Your task to perform on an android device: open app "Move to iOS" (install if not already installed) and go to login screen Image 0: 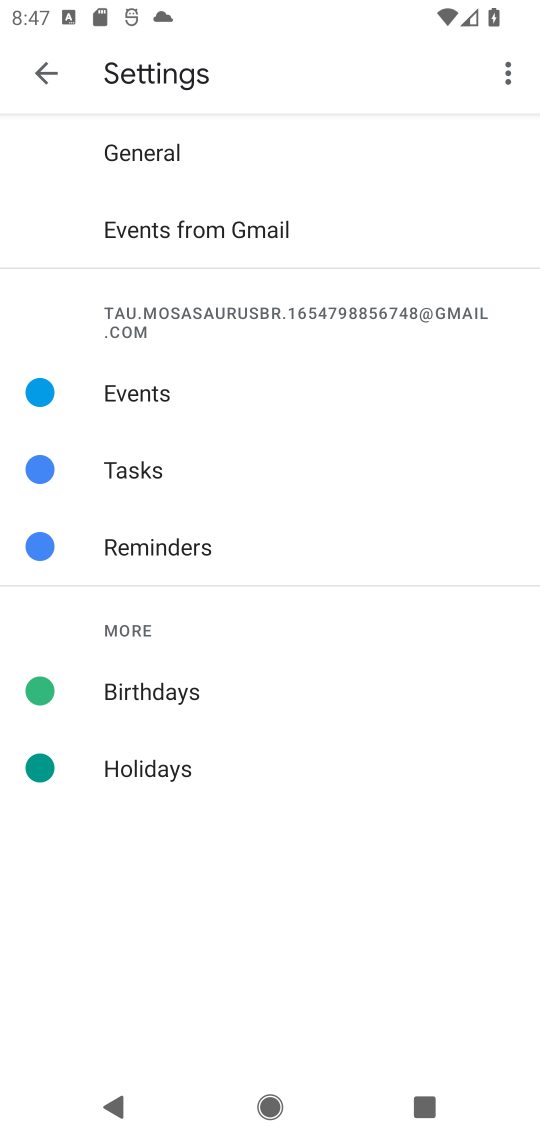
Step 0: press home button
Your task to perform on an android device: open app "Move to iOS" (install if not already installed) and go to login screen Image 1: 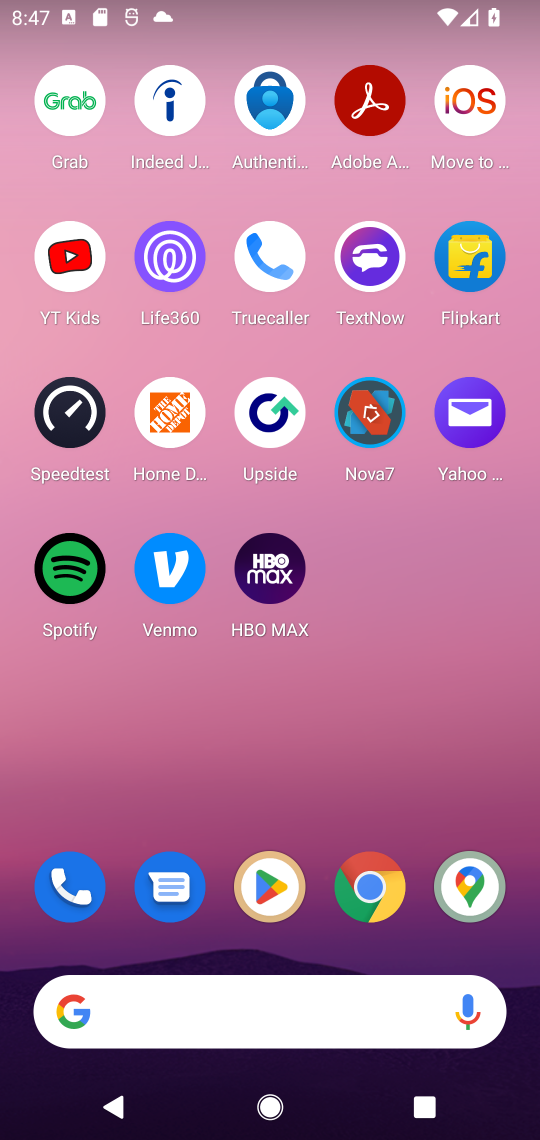
Step 1: click (269, 897)
Your task to perform on an android device: open app "Move to iOS" (install if not already installed) and go to login screen Image 2: 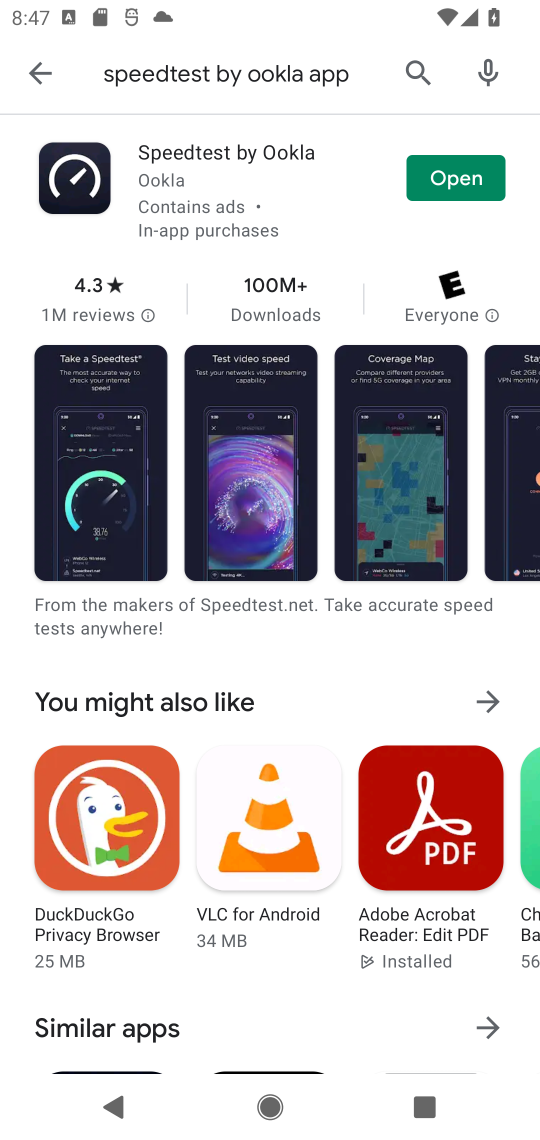
Step 2: click (415, 72)
Your task to perform on an android device: open app "Move to iOS" (install if not already installed) and go to login screen Image 3: 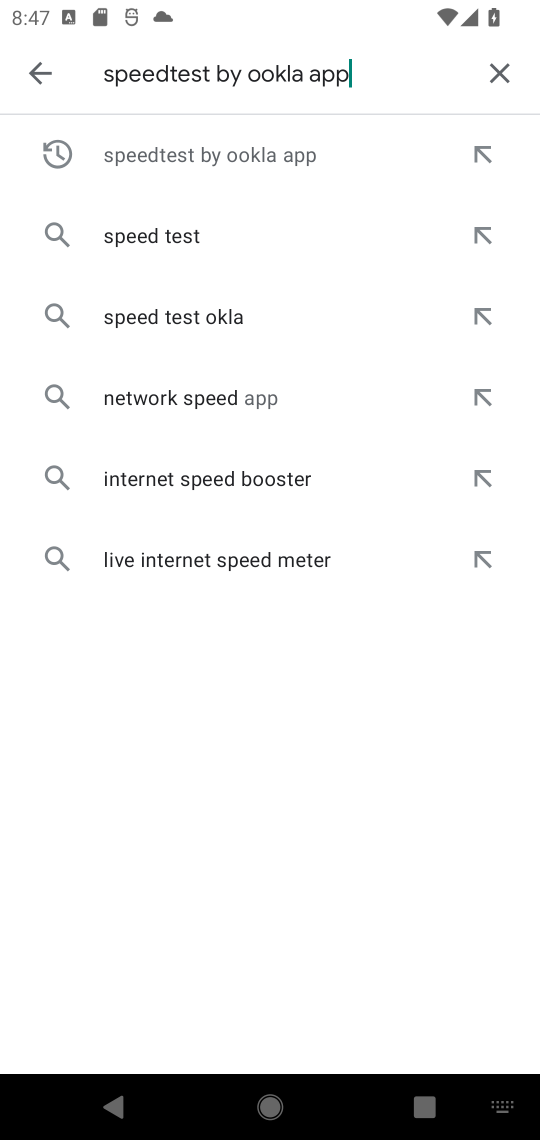
Step 3: click (501, 65)
Your task to perform on an android device: open app "Move to iOS" (install if not already installed) and go to login screen Image 4: 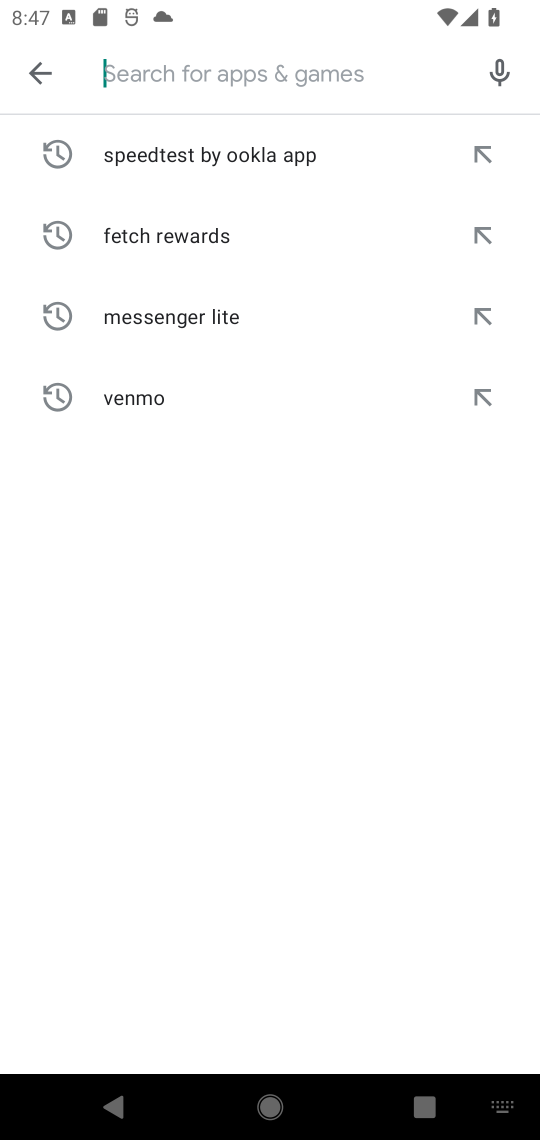
Step 4: type "Move to iOS"
Your task to perform on an android device: open app "Move to iOS" (install if not already installed) and go to login screen Image 5: 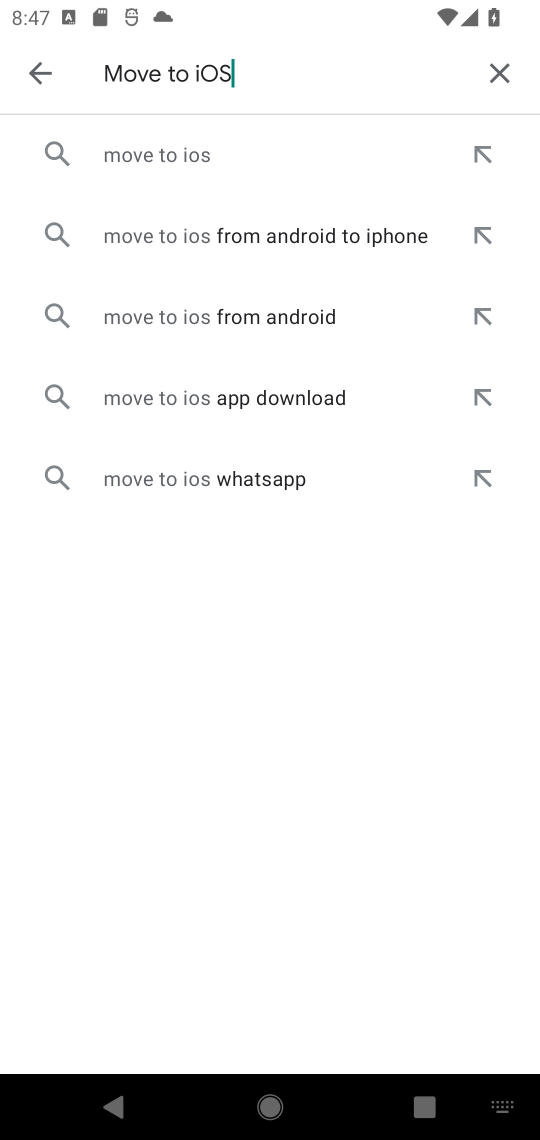
Step 5: click (174, 160)
Your task to perform on an android device: open app "Move to iOS" (install if not already installed) and go to login screen Image 6: 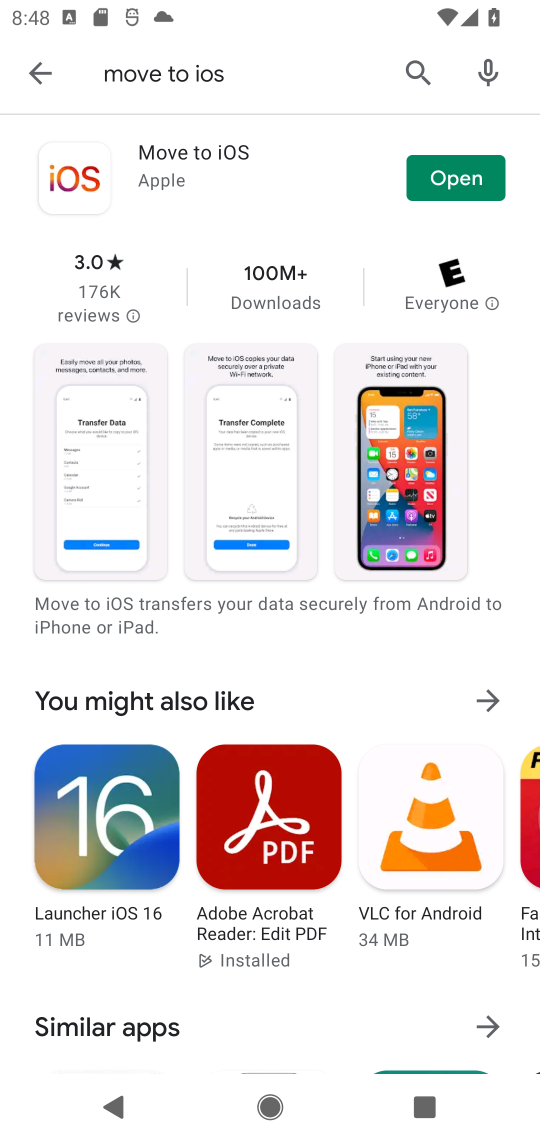
Step 6: click (470, 184)
Your task to perform on an android device: open app "Move to iOS" (install if not already installed) and go to login screen Image 7: 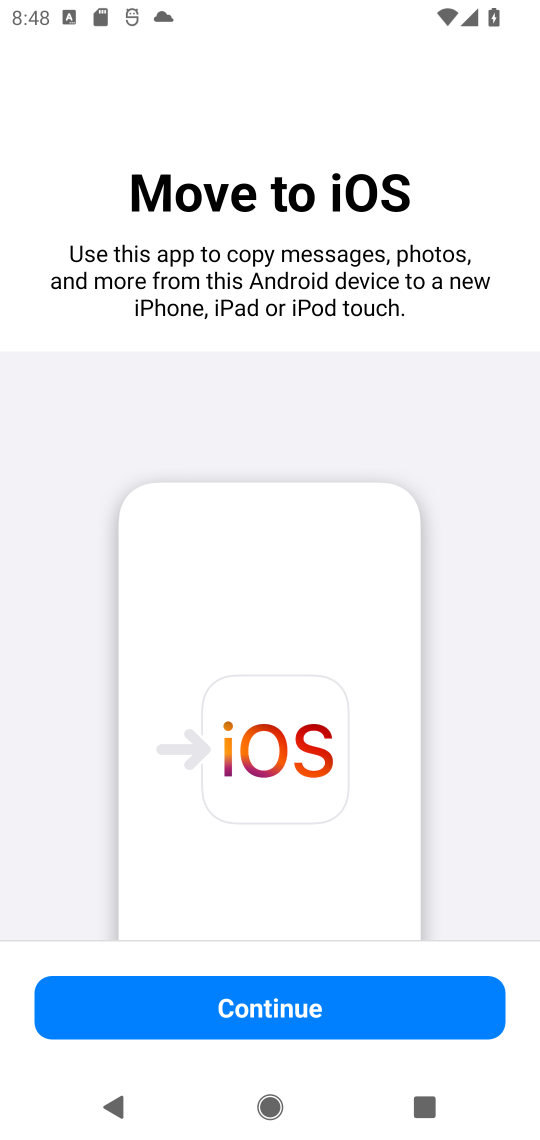
Step 7: click (313, 1001)
Your task to perform on an android device: open app "Move to iOS" (install if not already installed) and go to login screen Image 8: 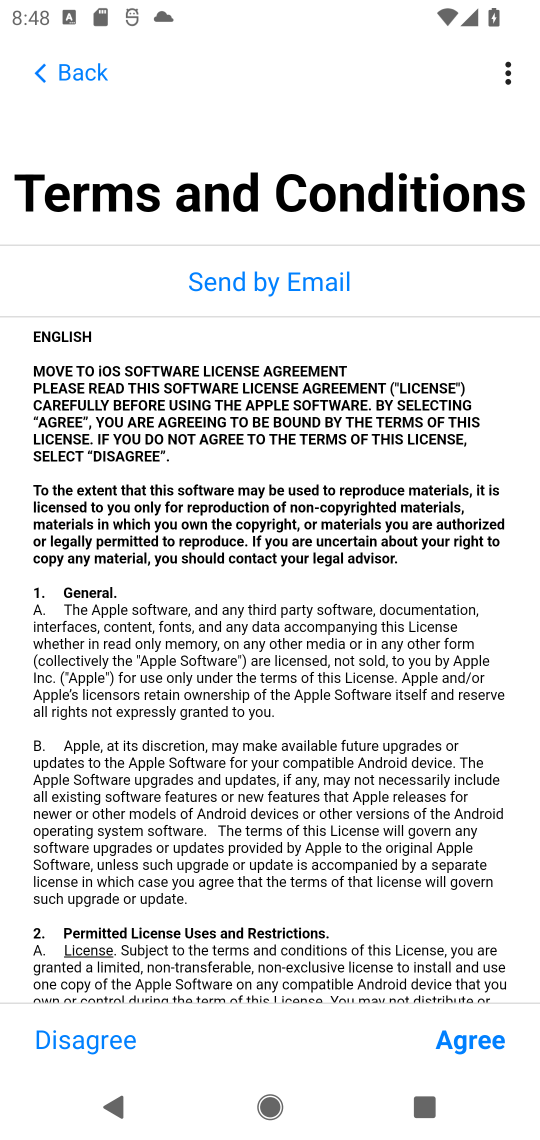
Step 8: click (484, 1037)
Your task to perform on an android device: open app "Move to iOS" (install if not already installed) and go to login screen Image 9: 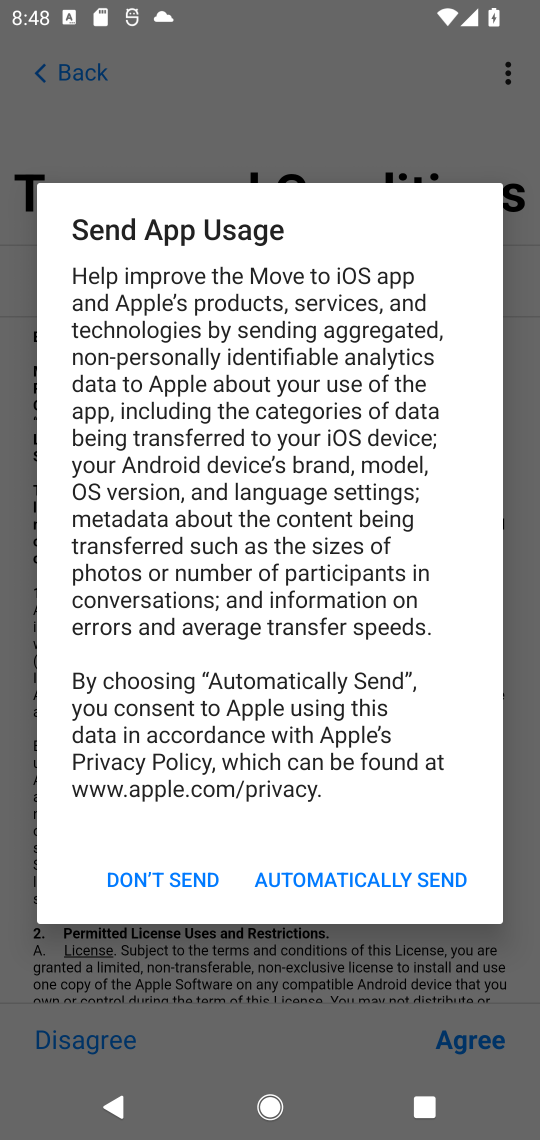
Step 9: click (310, 886)
Your task to perform on an android device: open app "Move to iOS" (install if not already installed) and go to login screen Image 10: 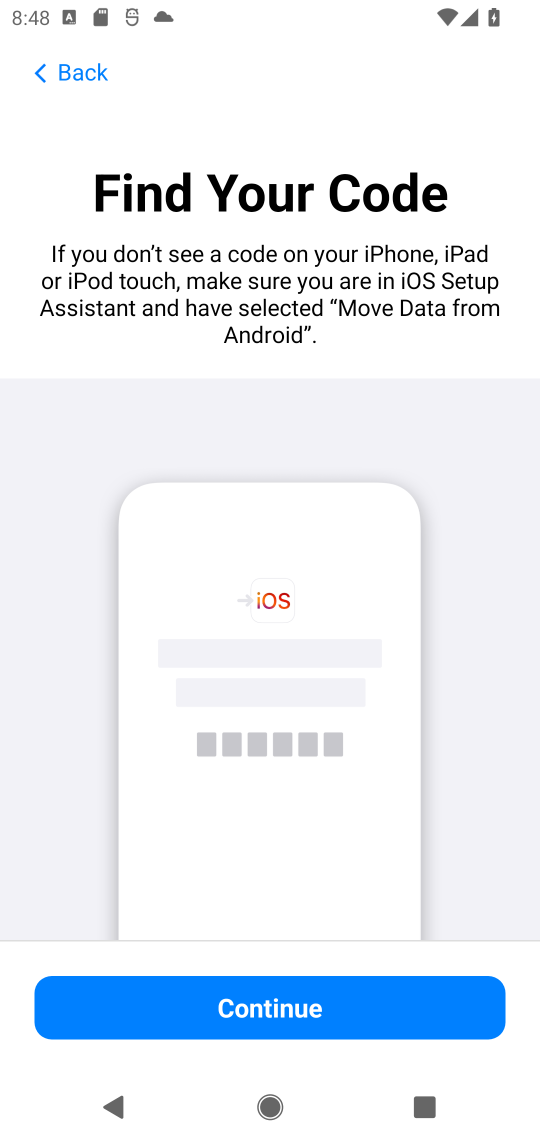
Step 10: click (480, 1041)
Your task to perform on an android device: open app "Move to iOS" (install if not already installed) and go to login screen Image 11: 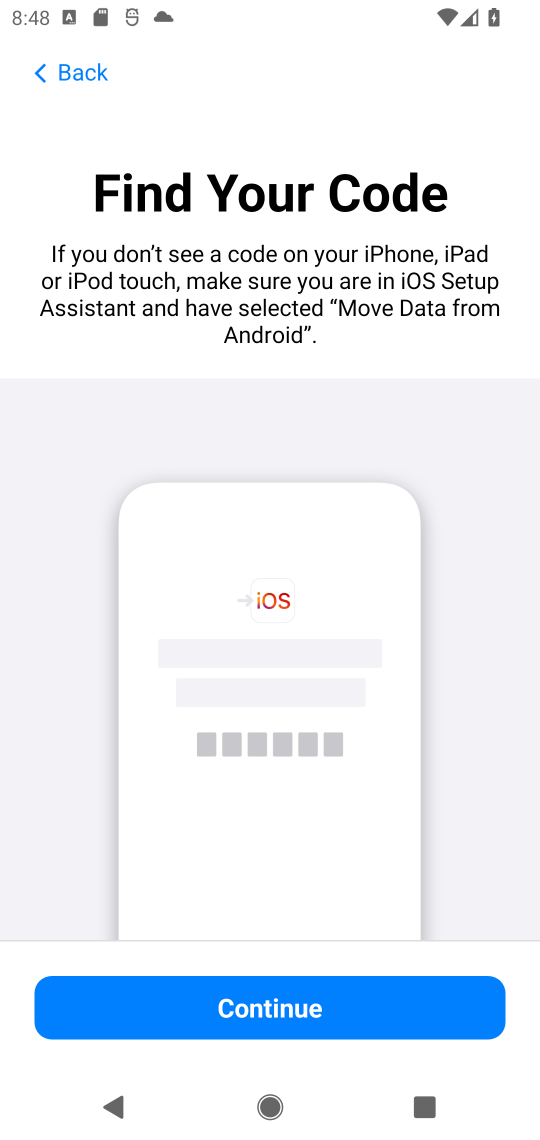
Step 11: click (164, 1002)
Your task to perform on an android device: open app "Move to iOS" (install if not already installed) and go to login screen Image 12: 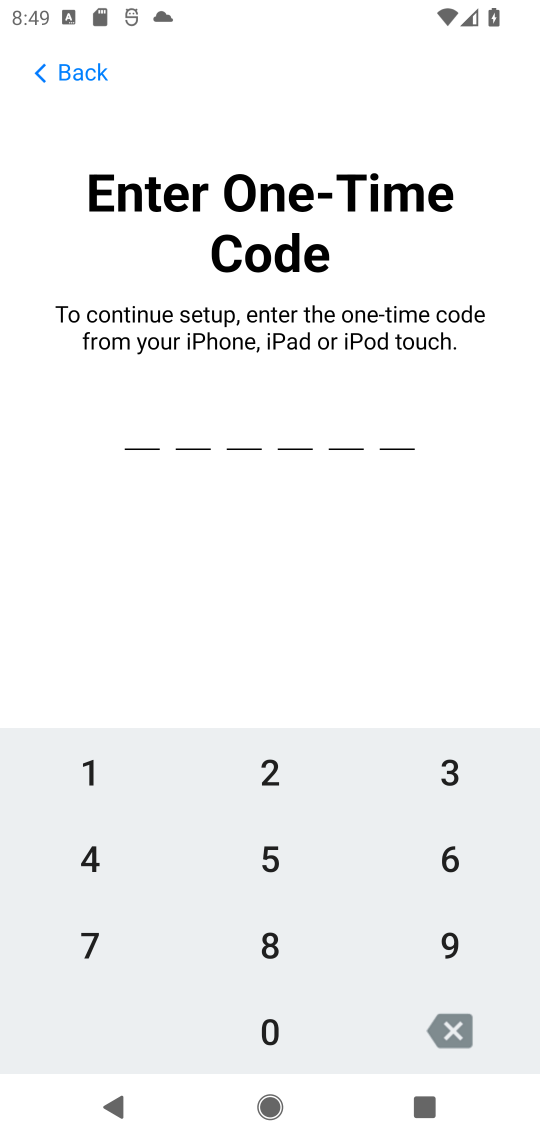
Step 12: task complete